Your task to perform on an android device: Open Chrome and go to settings Image 0: 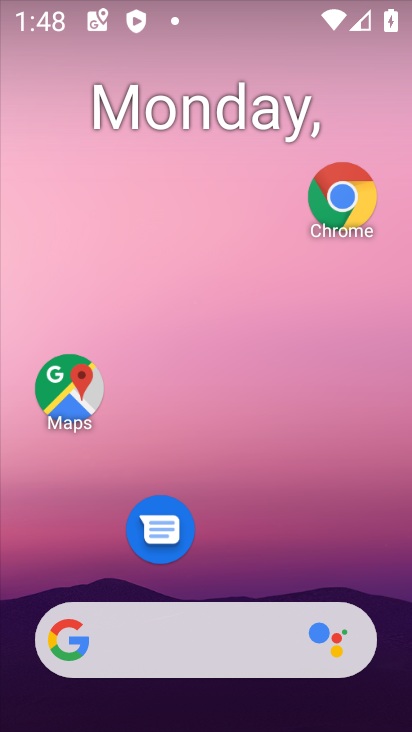
Step 0: click (328, 210)
Your task to perform on an android device: Open Chrome and go to settings Image 1: 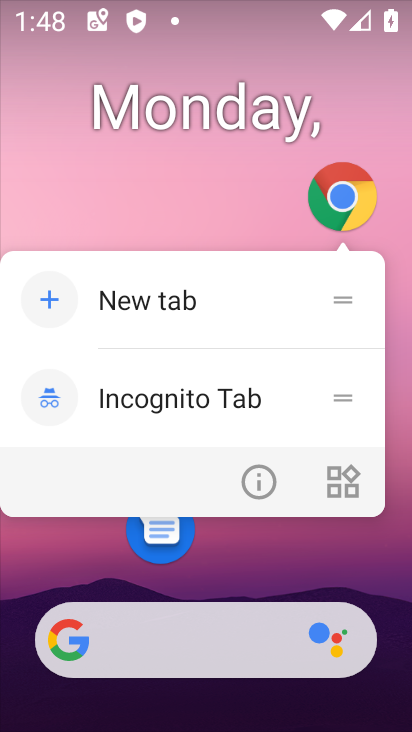
Step 1: click (329, 209)
Your task to perform on an android device: Open Chrome and go to settings Image 2: 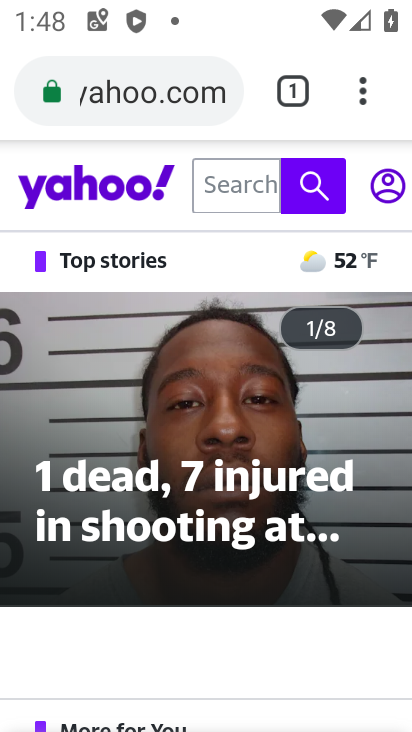
Step 2: click (364, 80)
Your task to perform on an android device: Open Chrome and go to settings Image 3: 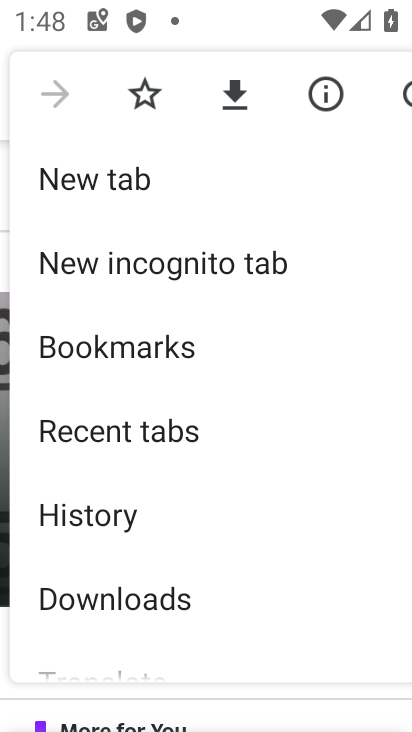
Step 3: drag from (197, 559) to (194, 126)
Your task to perform on an android device: Open Chrome and go to settings Image 4: 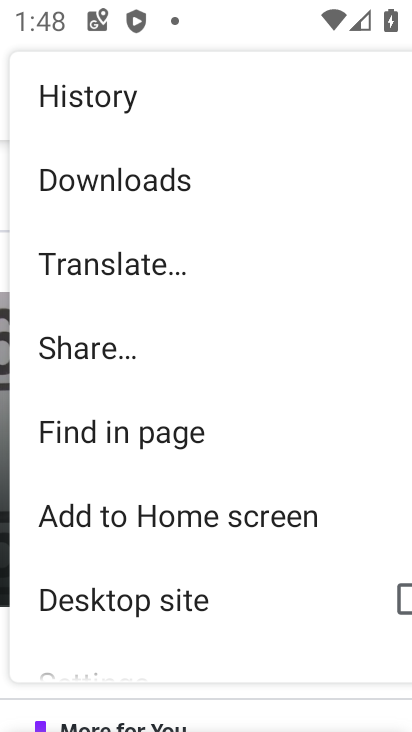
Step 4: drag from (123, 641) to (100, 303)
Your task to perform on an android device: Open Chrome and go to settings Image 5: 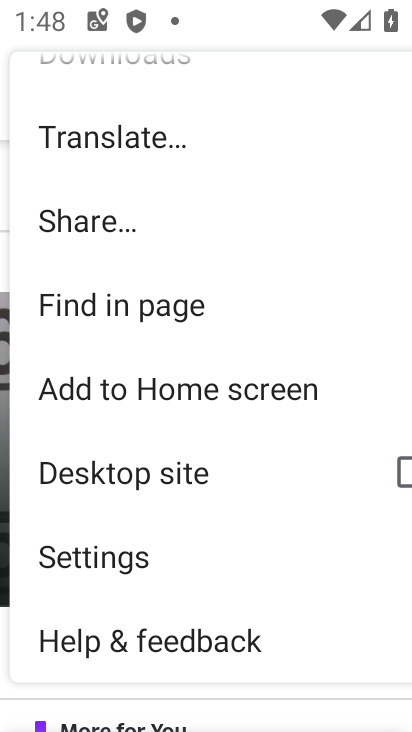
Step 5: click (94, 541)
Your task to perform on an android device: Open Chrome and go to settings Image 6: 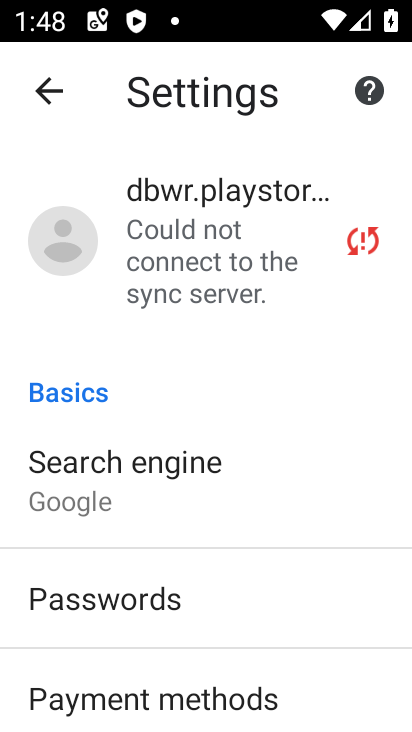
Step 6: task complete